Your task to perform on an android device: open app "Messenger Lite" Image 0: 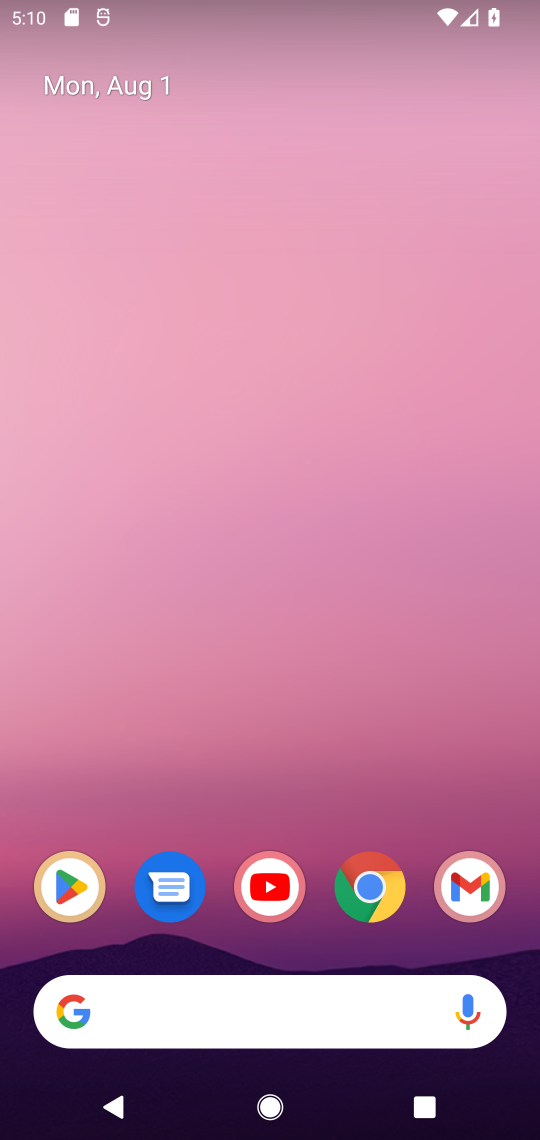
Step 0: drag from (257, 968) to (183, 157)
Your task to perform on an android device: open app "Messenger Lite" Image 1: 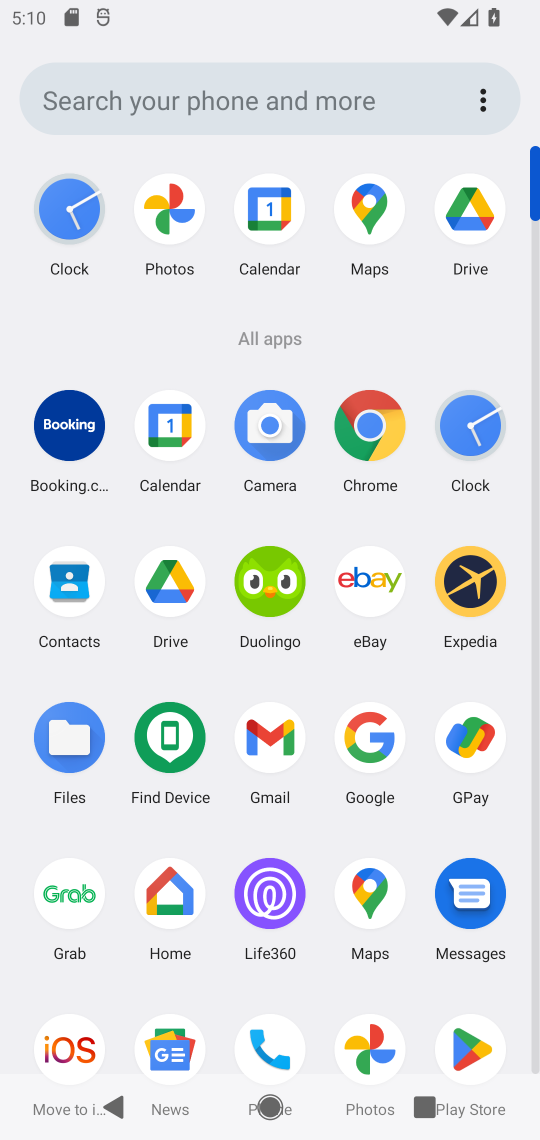
Step 1: click (481, 1031)
Your task to perform on an android device: open app "Messenger Lite" Image 2: 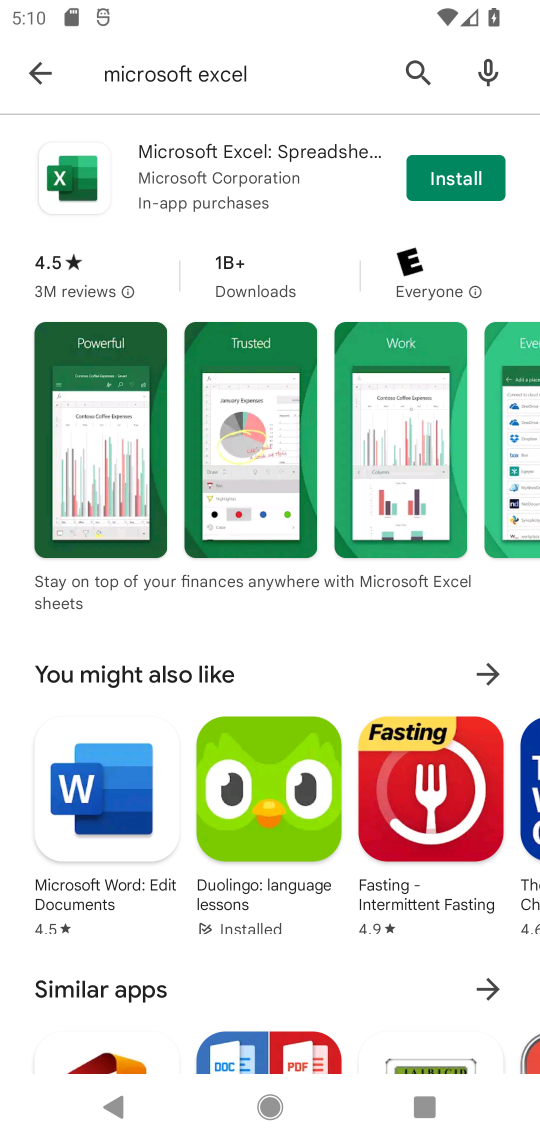
Step 2: click (31, 96)
Your task to perform on an android device: open app "Messenger Lite" Image 3: 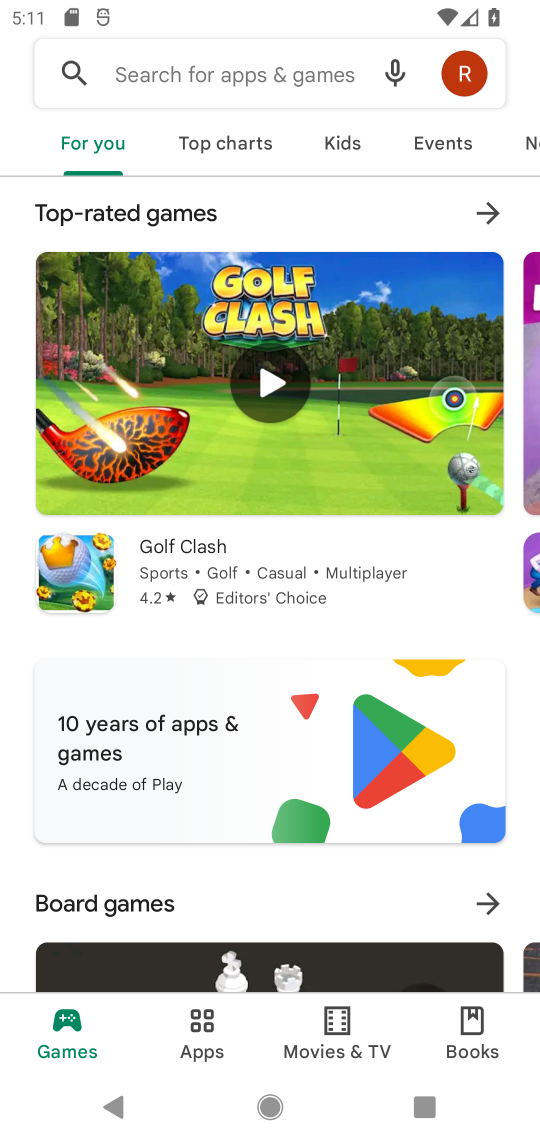
Step 3: click (125, 87)
Your task to perform on an android device: open app "Messenger Lite" Image 4: 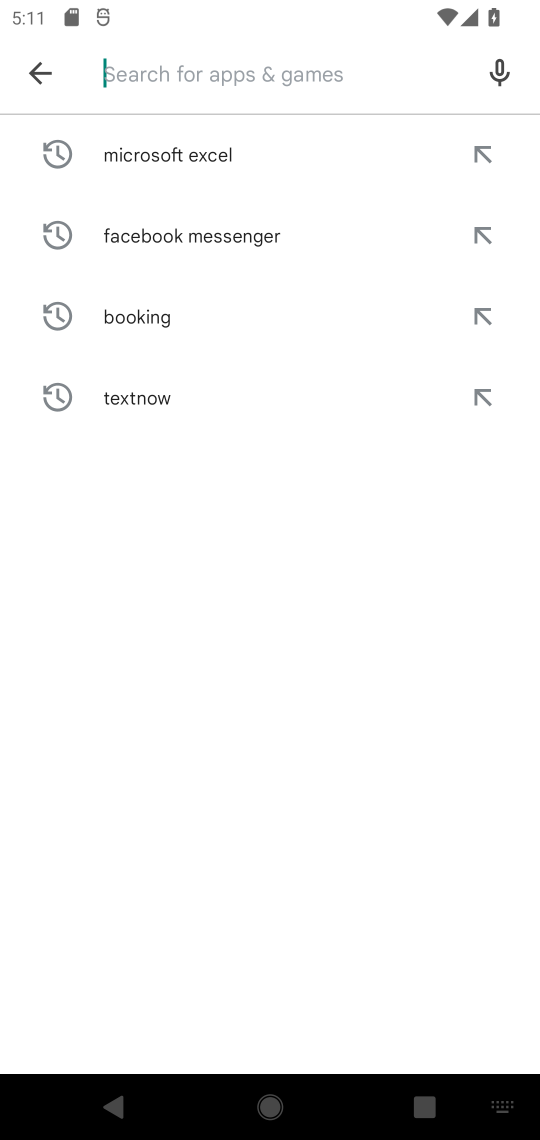
Step 4: type "Messenger Lite"
Your task to perform on an android device: open app "Messenger Lite" Image 5: 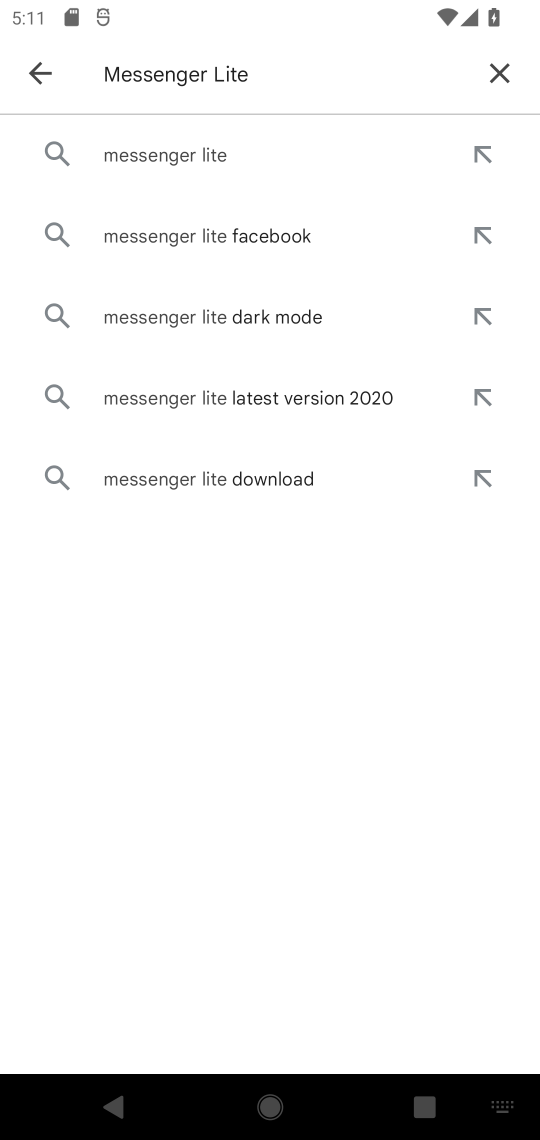
Step 5: click (356, 177)
Your task to perform on an android device: open app "Messenger Lite" Image 6: 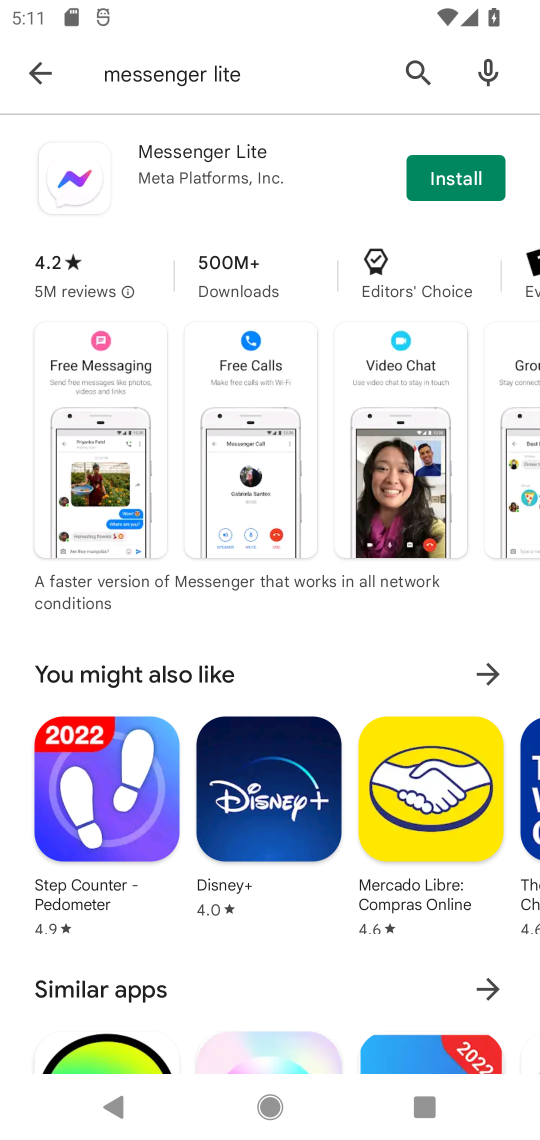
Step 6: task complete